Your task to perform on an android device: Open calendar and show me the fourth week of next month Image 0: 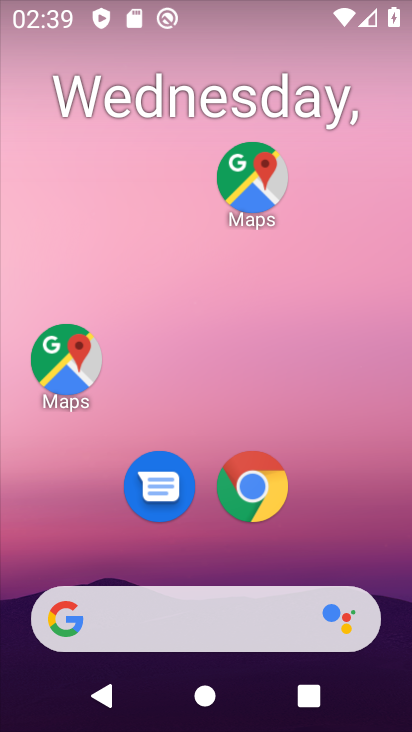
Step 0: drag from (194, 568) to (227, 31)
Your task to perform on an android device: Open calendar and show me the fourth week of next month Image 1: 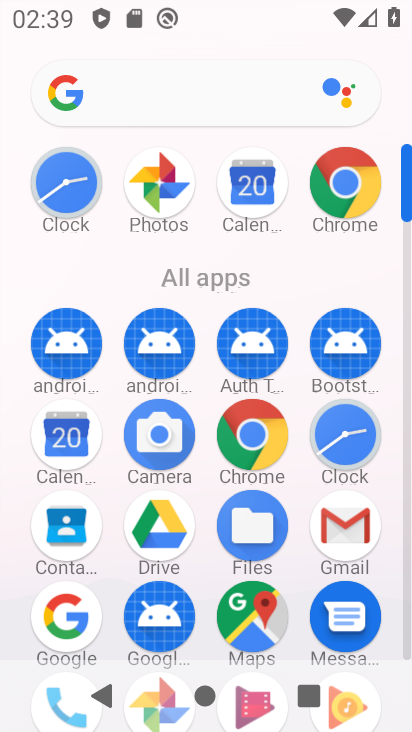
Step 1: click (64, 435)
Your task to perform on an android device: Open calendar and show me the fourth week of next month Image 2: 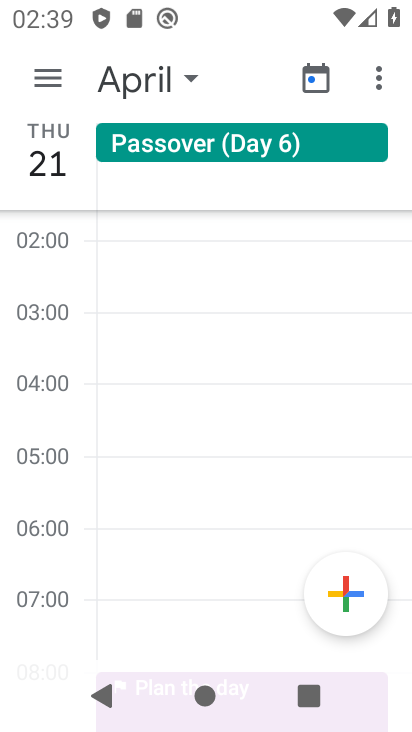
Step 2: click (58, 75)
Your task to perform on an android device: Open calendar and show me the fourth week of next month Image 3: 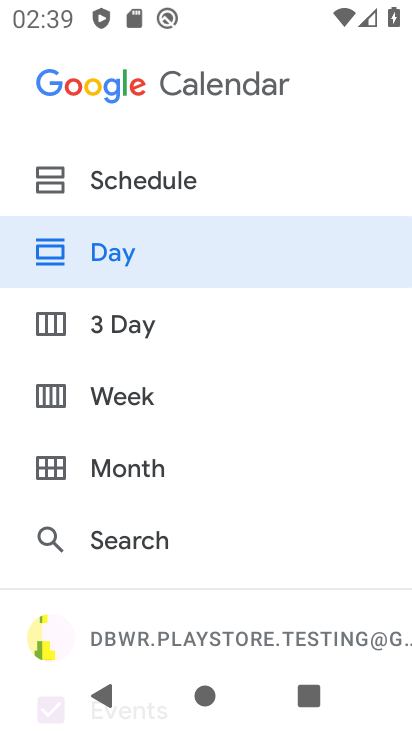
Step 3: click (122, 392)
Your task to perform on an android device: Open calendar and show me the fourth week of next month Image 4: 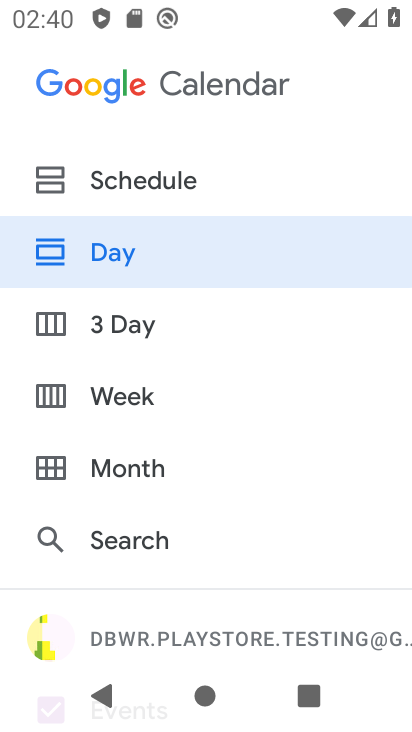
Step 4: click (96, 400)
Your task to perform on an android device: Open calendar and show me the fourth week of next month Image 5: 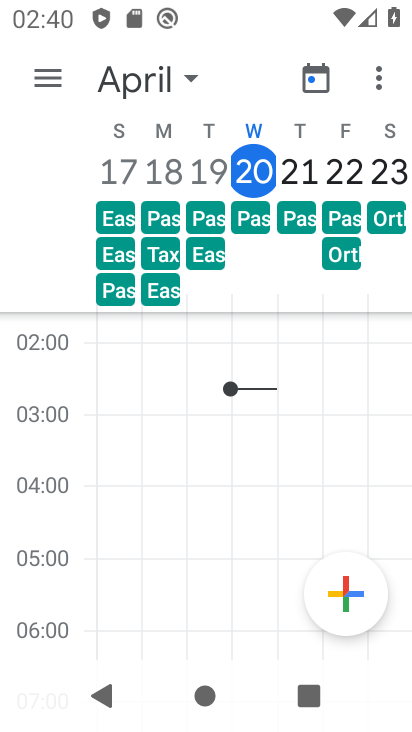
Step 5: task complete